Your task to perform on an android device: Go to notification settings Image 0: 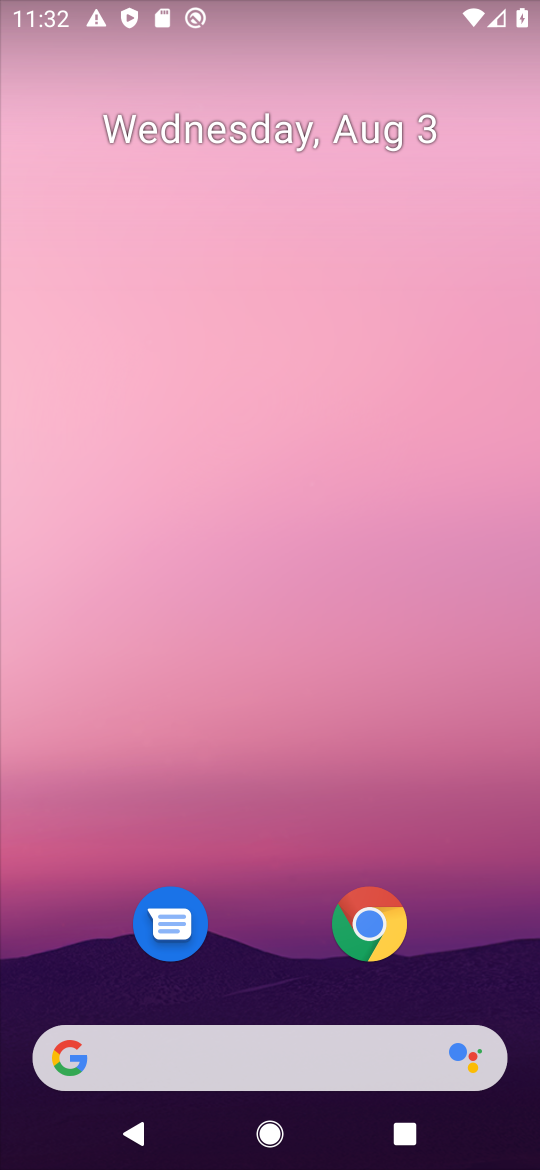
Step 0: drag from (187, 831) to (349, 273)
Your task to perform on an android device: Go to notification settings Image 1: 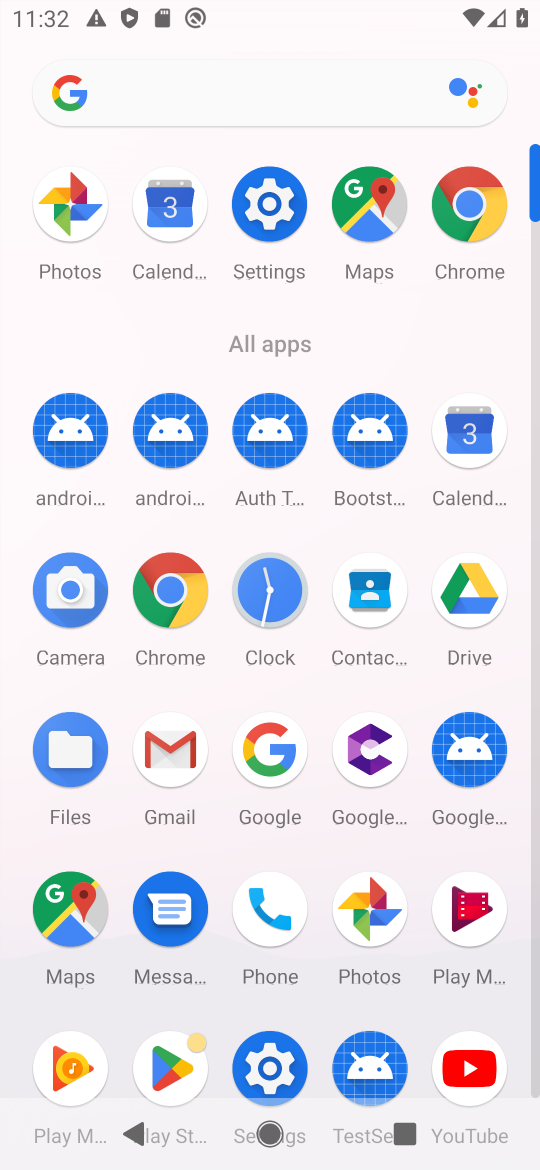
Step 1: click (281, 1052)
Your task to perform on an android device: Go to notification settings Image 2: 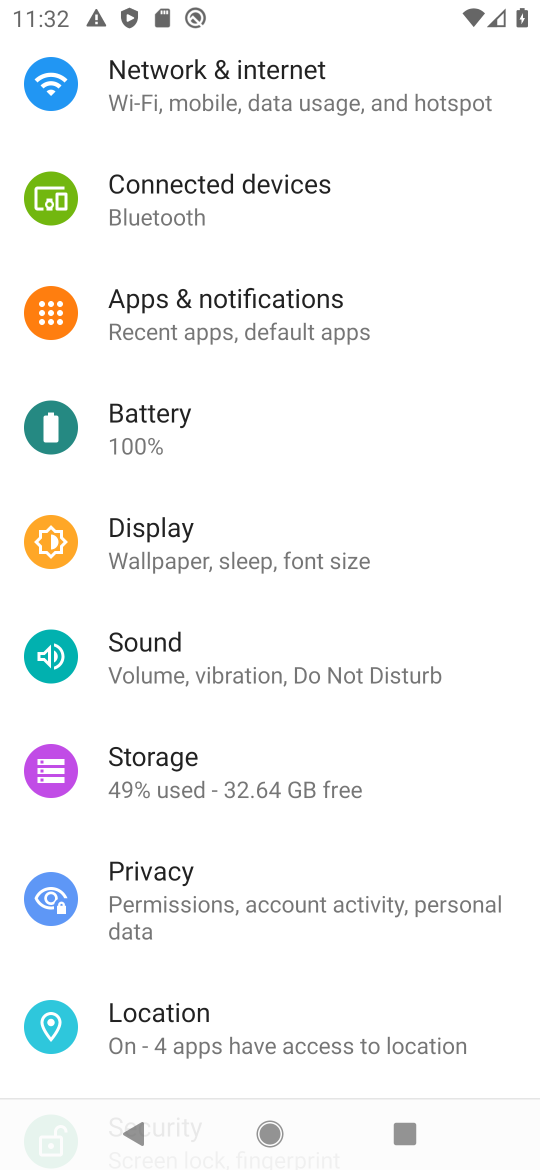
Step 2: click (239, 100)
Your task to perform on an android device: Go to notification settings Image 3: 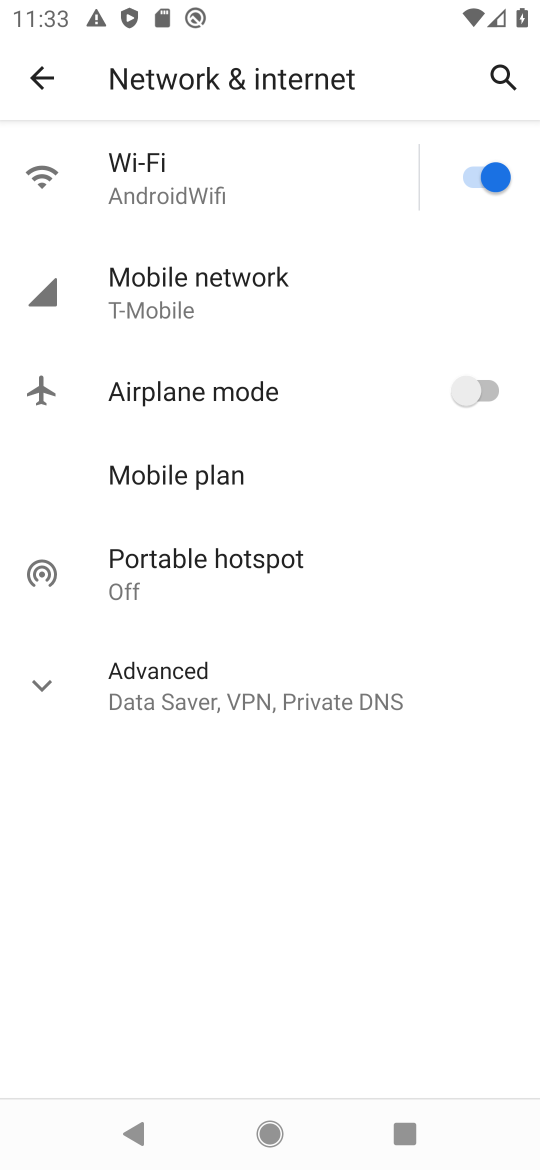
Step 3: click (63, 68)
Your task to perform on an android device: Go to notification settings Image 4: 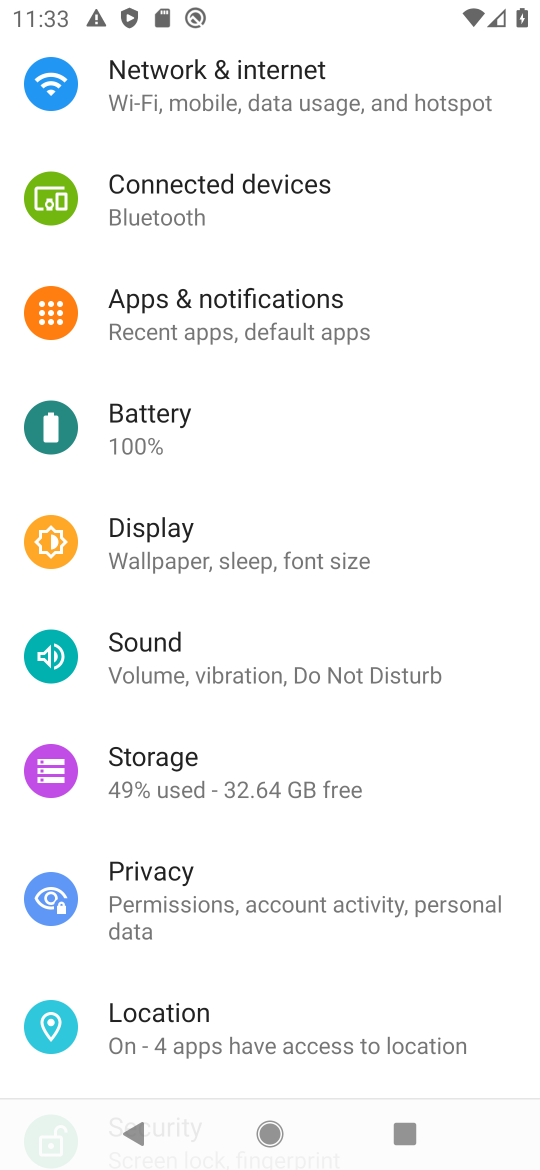
Step 4: click (173, 327)
Your task to perform on an android device: Go to notification settings Image 5: 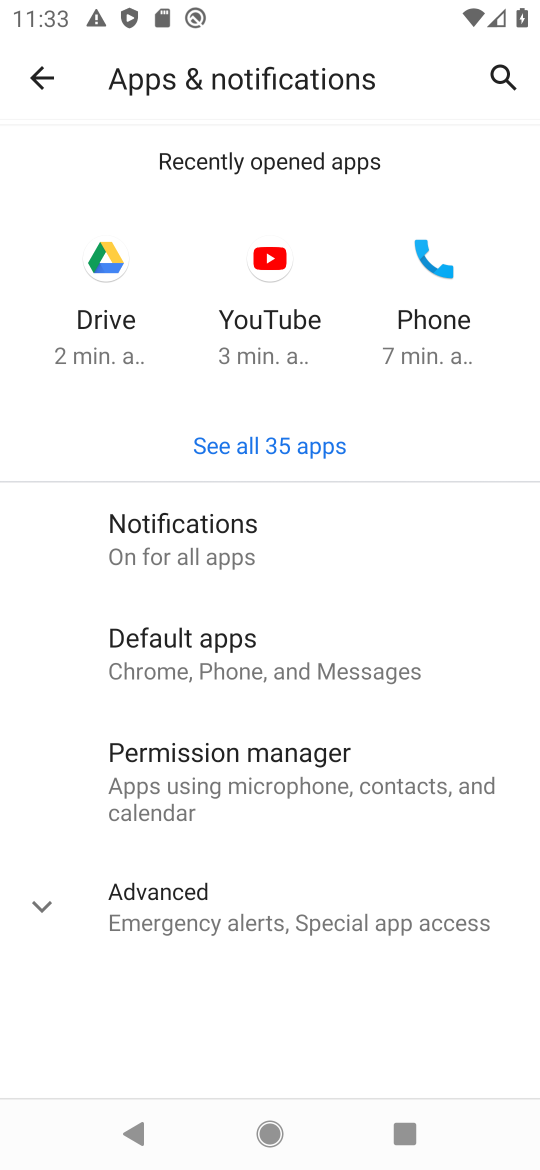
Step 5: task complete